Your task to perform on an android device: empty trash in the gmail app Image 0: 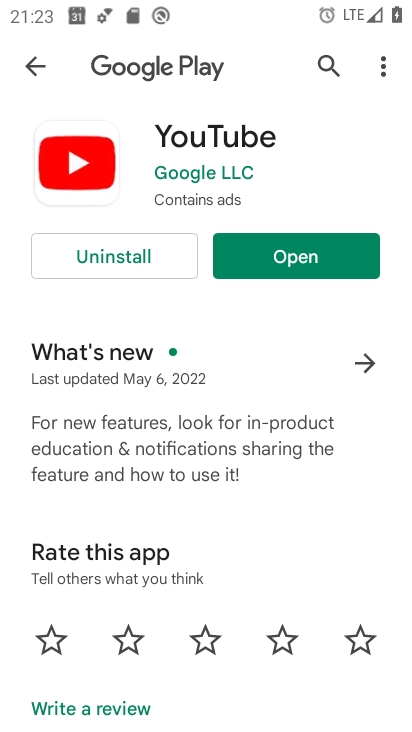
Step 0: press home button
Your task to perform on an android device: empty trash in the gmail app Image 1: 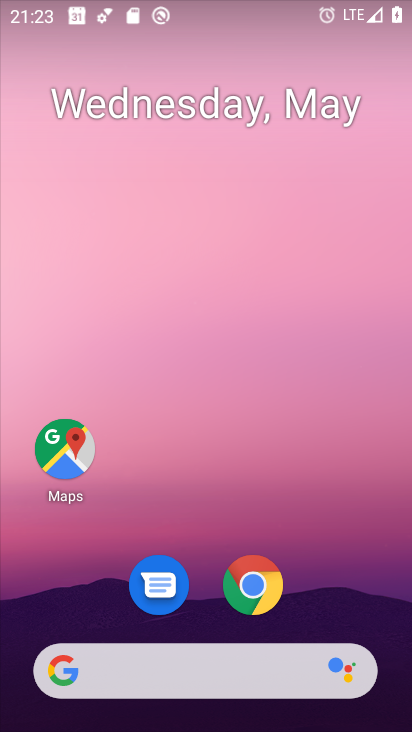
Step 1: drag from (291, 479) to (228, 33)
Your task to perform on an android device: empty trash in the gmail app Image 2: 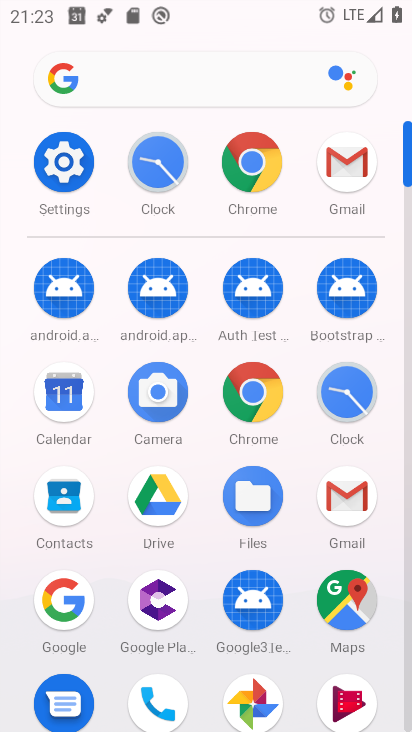
Step 2: click (349, 168)
Your task to perform on an android device: empty trash in the gmail app Image 3: 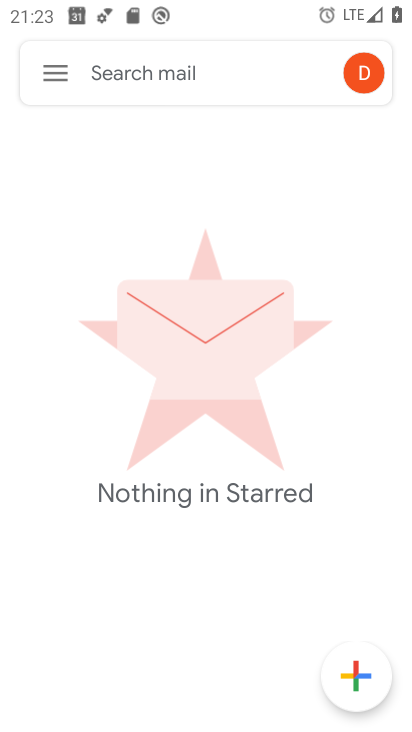
Step 3: click (57, 72)
Your task to perform on an android device: empty trash in the gmail app Image 4: 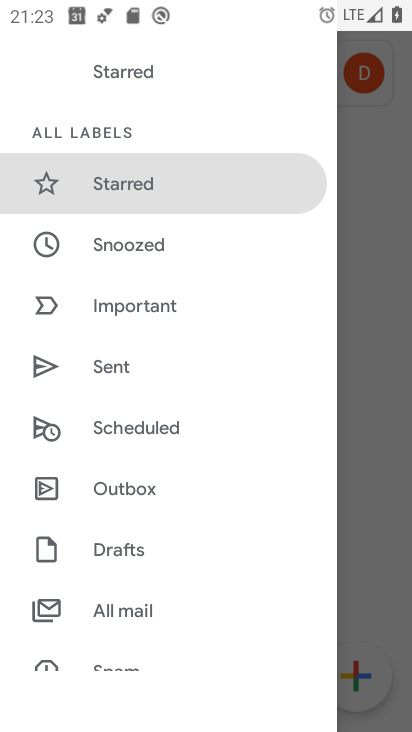
Step 4: drag from (177, 538) to (166, 217)
Your task to perform on an android device: empty trash in the gmail app Image 5: 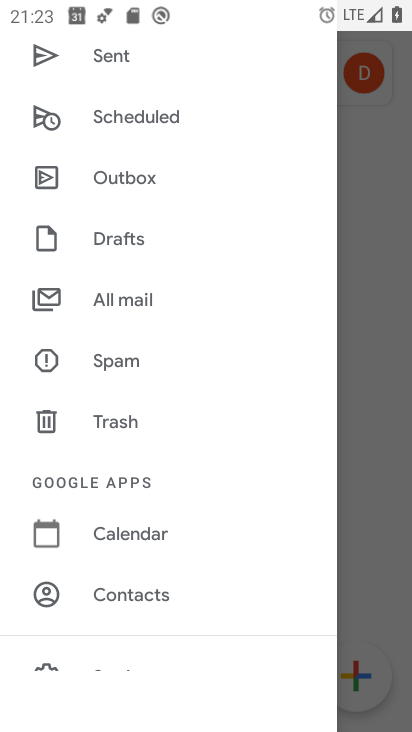
Step 5: click (150, 424)
Your task to perform on an android device: empty trash in the gmail app Image 6: 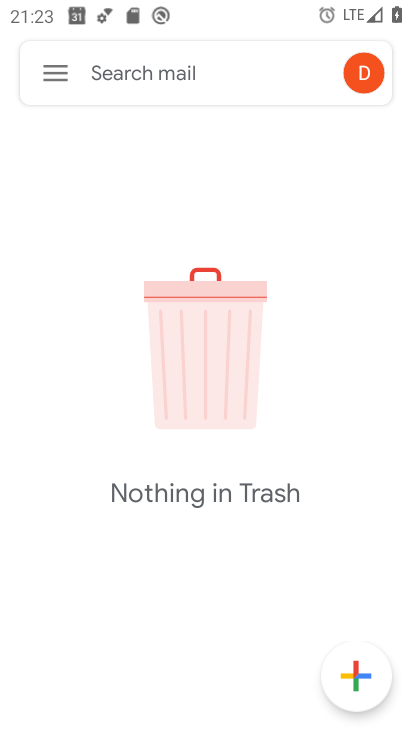
Step 6: task complete